Your task to perform on an android device: open a bookmark in the chrome app Image 0: 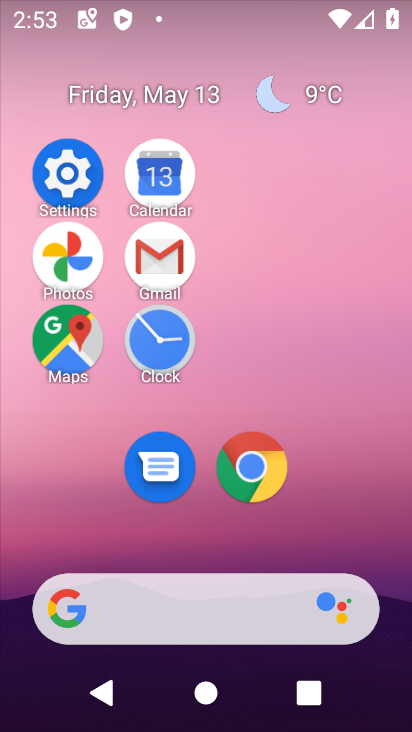
Step 0: click (263, 448)
Your task to perform on an android device: open a bookmark in the chrome app Image 1: 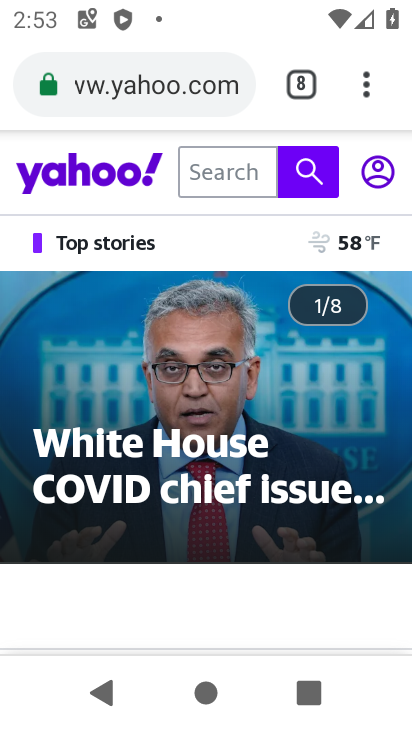
Step 1: click (380, 65)
Your task to perform on an android device: open a bookmark in the chrome app Image 2: 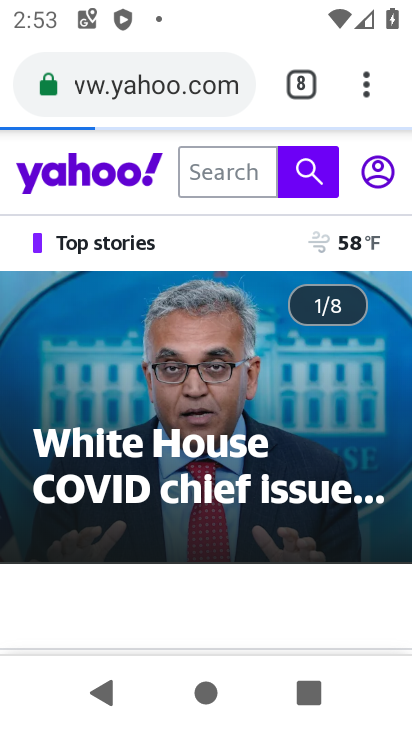
Step 2: click (369, 92)
Your task to perform on an android device: open a bookmark in the chrome app Image 3: 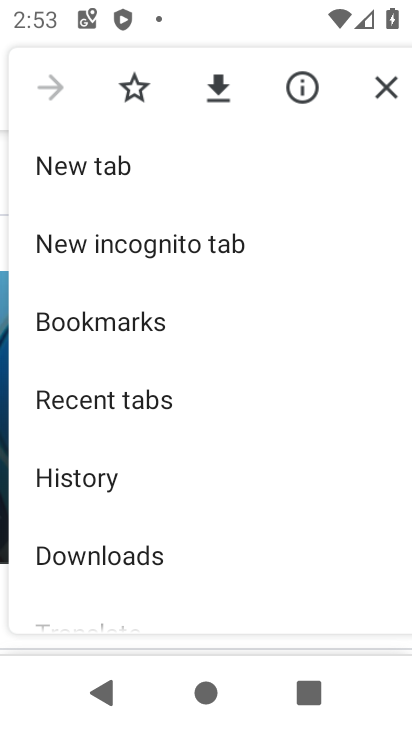
Step 3: click (156, 346)
Your task to perform on an android device: open a bookmark in the chrome app Image 4: 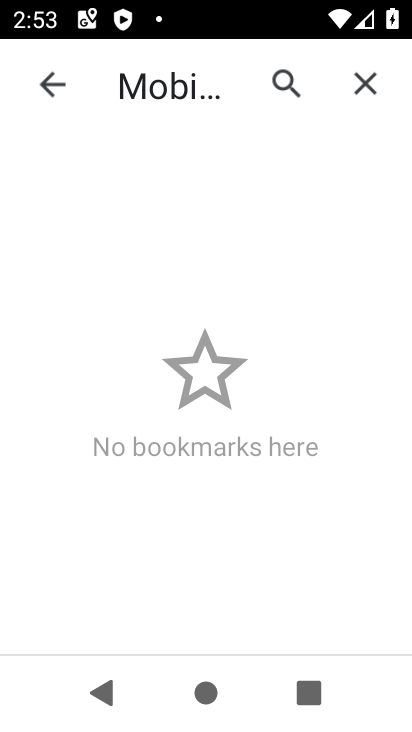
Step 4: task complete